Your task to perform on an android device: Go to eBay Image 0: 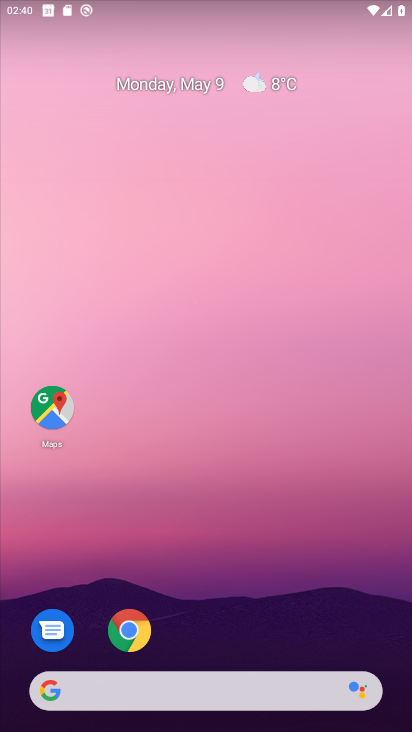
Step 0: click (137, 632)
Your task to perform on an android device: Go to eBay Image 1: 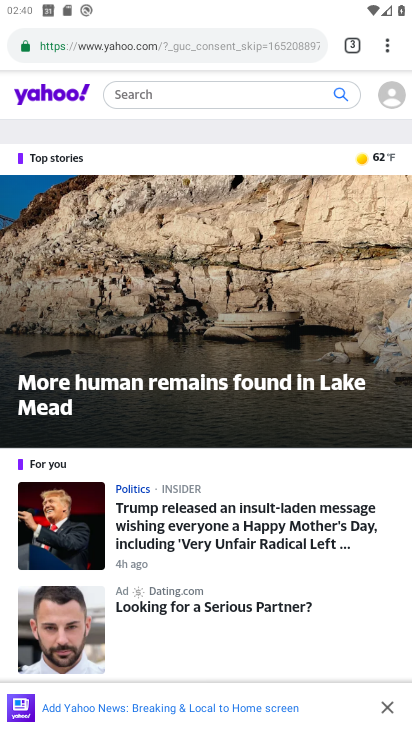
Step 1: click (217, 41)
Your task to perform on an android device: Go to eBay Image 2: 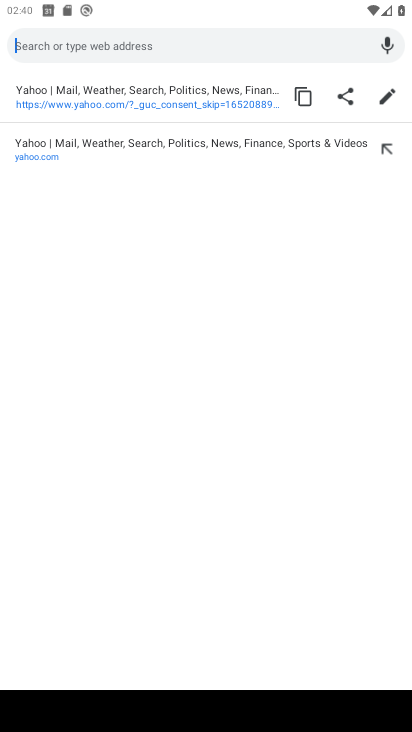
Step 2: type "eBay"
Your task to perform on an android device: Go to eBay Image 3: 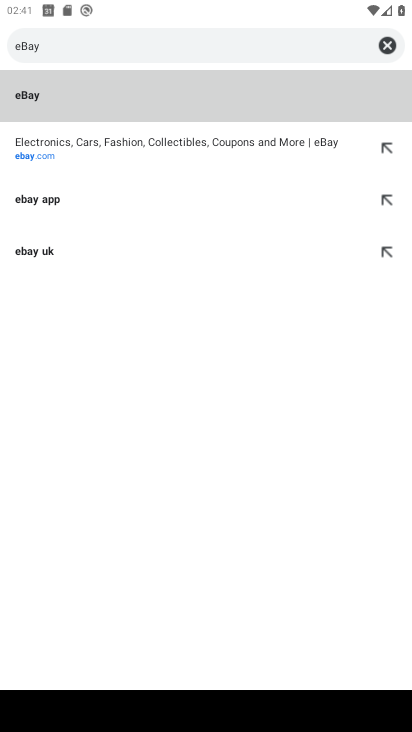
Step 3: click (271, 107)
Your task to perform on an android device: Go to eBay Image 4: 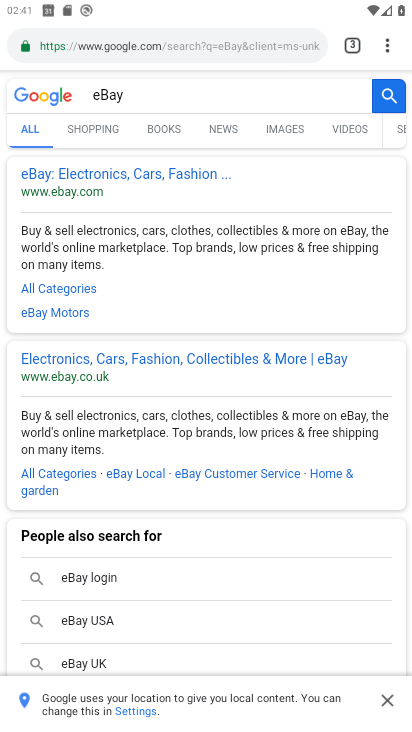
Step 4: task complete